Your task to perform on an android device: Go to display settings Image 0: 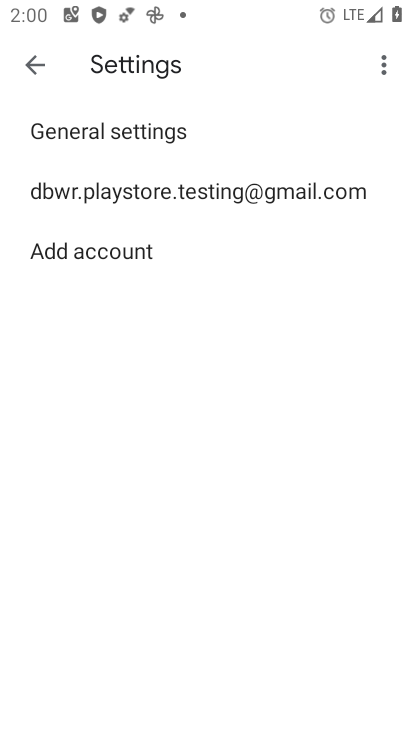
Step 0: press home button
Your task to perform on an android device: Go to display settings Image 1: 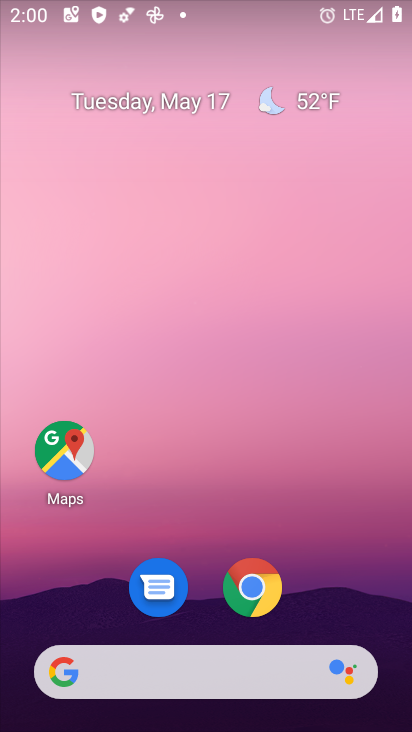
Step 1: drag from (346, 583) to (239, 262)
Your task to perform on an android device: Go to display settings Image 2: 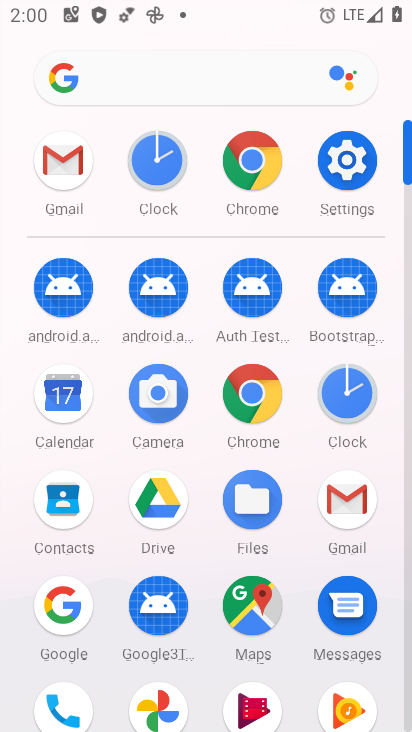
Step 2: click (329, 192)
Your task to perform on an android device: Go to display settings Image 3: 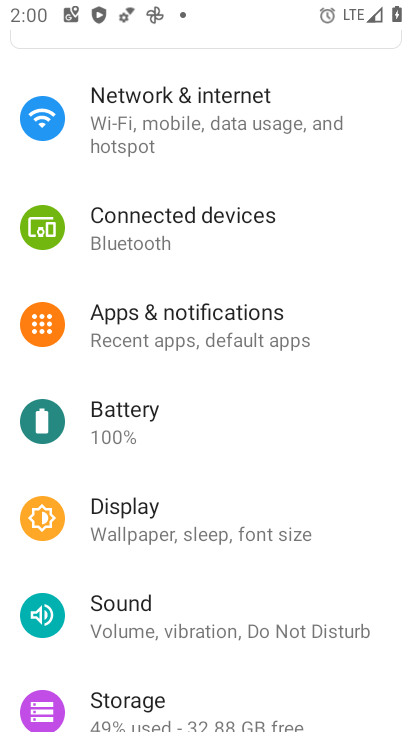
Step 3: click (252, 497)
Your task to perform on an android device: Go to display settings Image 4: 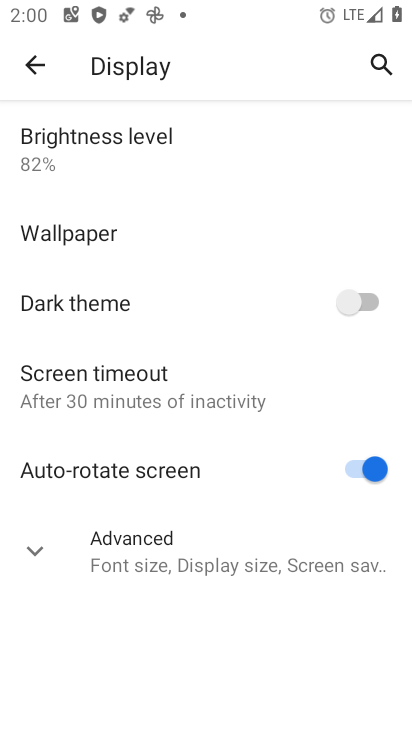
Step 4: task complete